Your task to perform on an android device: change notifications settings Image 0: 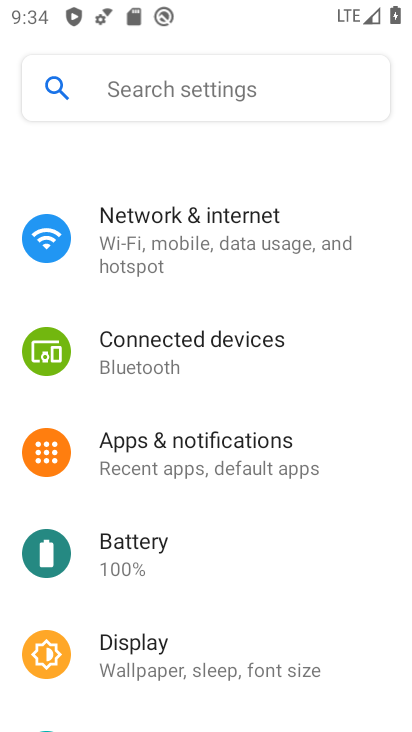
Step 0: drag from (346, 568) to (307, 211)
Your task to perform on an android device: change notifications settings Image 1: 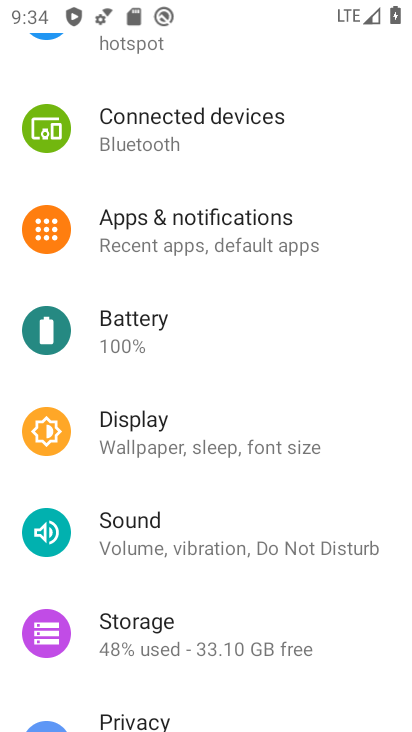
Step 1: click (195, 539)
Your task to perform on an android device: change notifications settings Image 2: 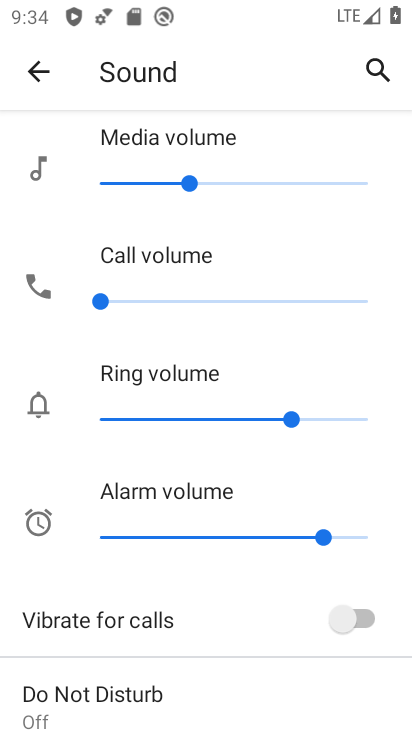
Step 2: task complete